Your task to perform on an android device: turn on the 12-hour format for clock Image 0: 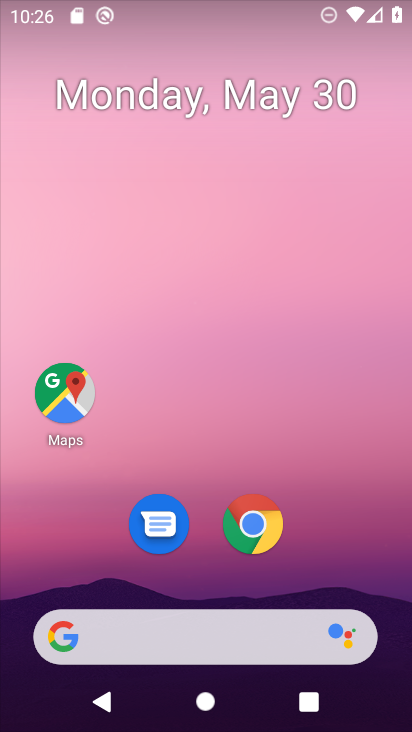
Step 0: drag from (327, 516) to (326, 57)
Your task to perform on an android device: turn on the 12-hour format for clock Image 1: 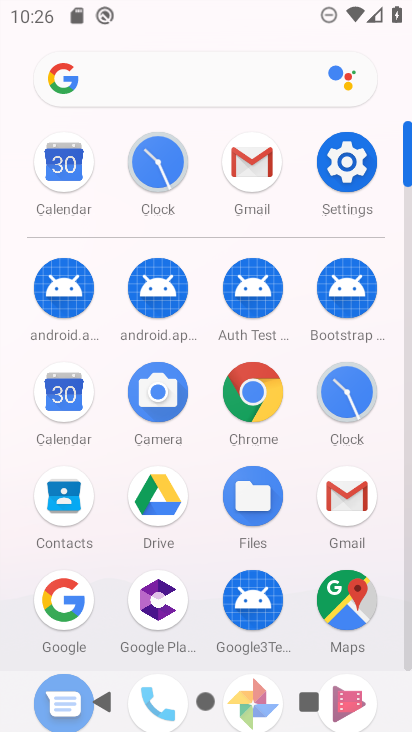
Step 1: click (349, 374)
Your task to perform on an android device: turn on the 12-hour format for clock Image 2: 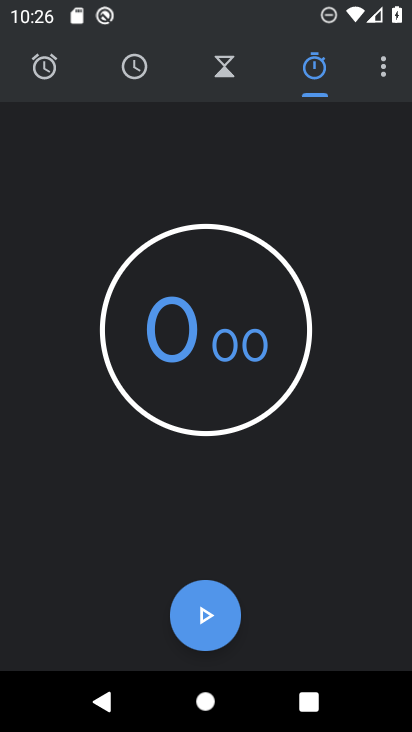
Step 2: click (386, 77)
Your task to perform on an android device: turn on the 12-hour format for clock Image 3: 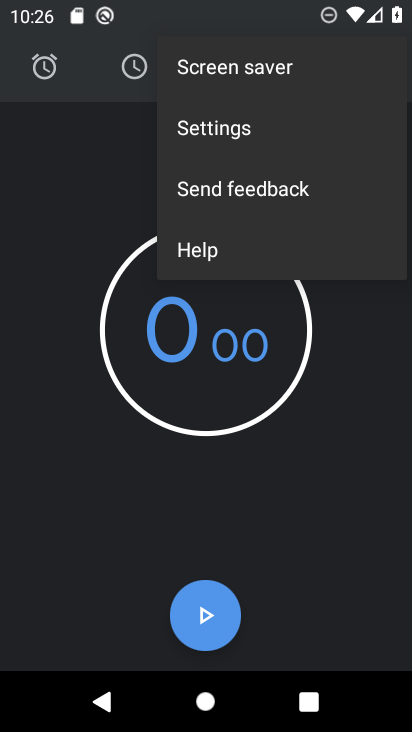
Step 3: click (314, 129)
Your task to perform on an android device: turn on the 12-hour format for clock Image 4: 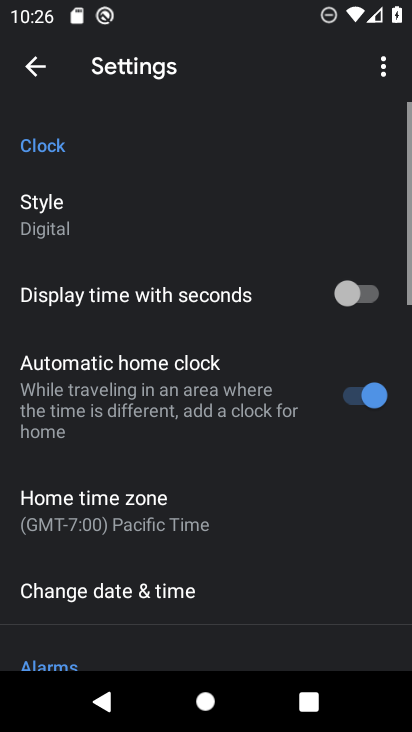
Step 4: drag from (367, 526) to (377, 211)
Your task to perform on an android device: turn on the 12-hour format for clock Image 5: 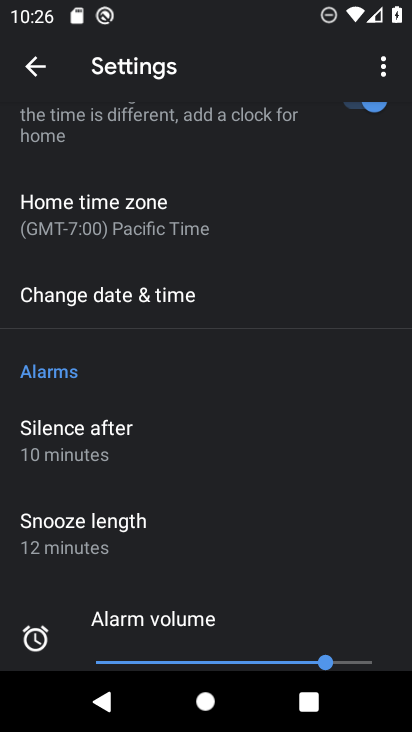
Step 5: click (335, 303)
Your task to perform on an android device: turn on the 12-hour format for clock Image 6: 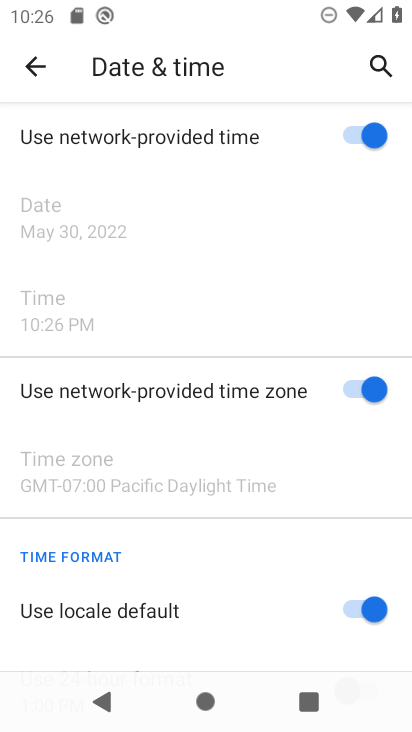
Step 6: task complete